Your task to perform on an android device: Open calendar and show me the second week of next month Image 0: 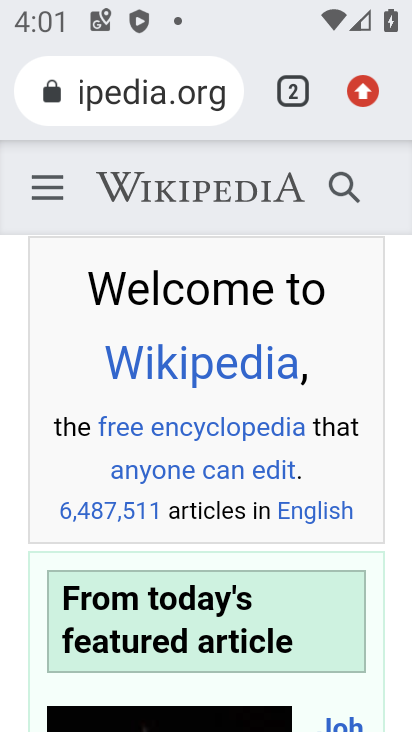
Step 0: press home button
Your task to perform on an android device: Open calendar and show me the second week of next month Image 1: 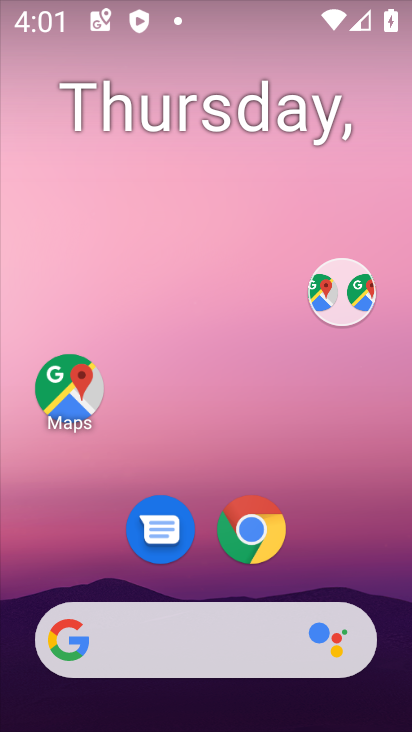
Step 1: drag from (395, 342) to (58, 281)
Your task to perform on an android device: Open calendar and show me the second week of next month Image 2: 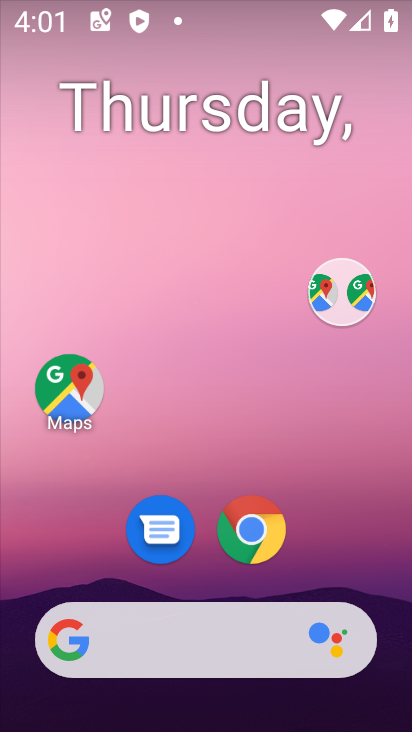
Step 2: drag from (183, 598) to (104, 137)
Your task to perform on an android device: Open calendar and show me the second week of next month Image 3: 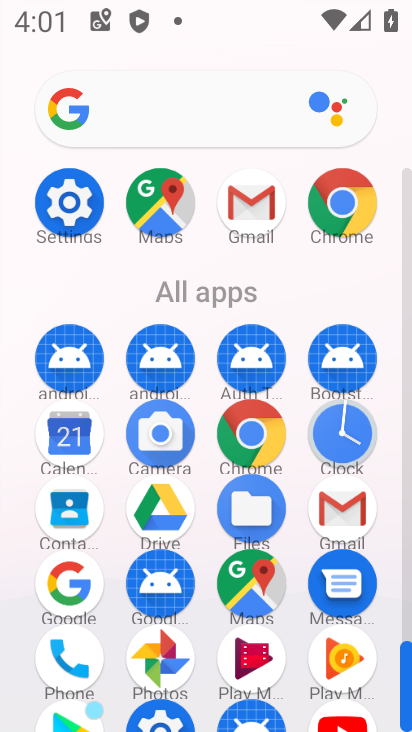
Step 3: click (82, 424)
Your task to perform on an android device: Open calendar and show me the second week of next month Image 4: 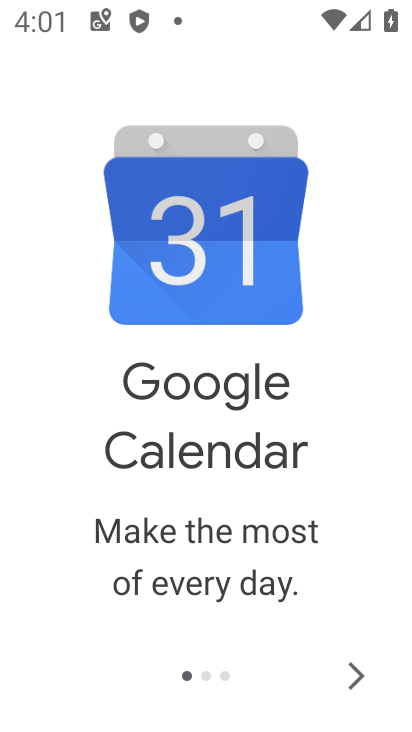
Step 4: click (349, 660)
Your task to perform on an android device: Open calendar and show me the second week of next month Image 5: 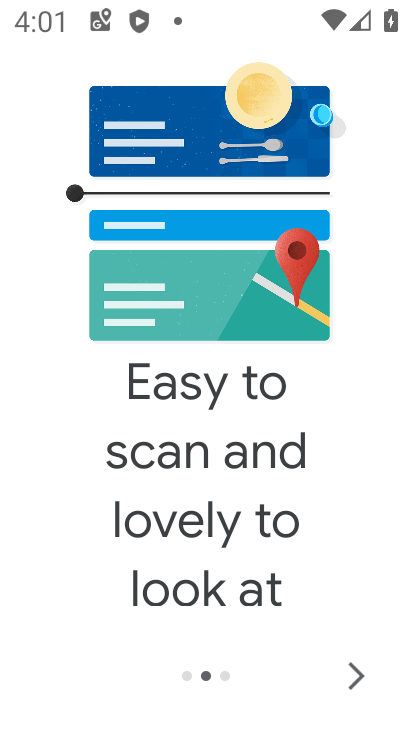
Step 5: click (351, 668)
Your task to perform on an android device: Open calendar and show me the second week of next month Image 6: 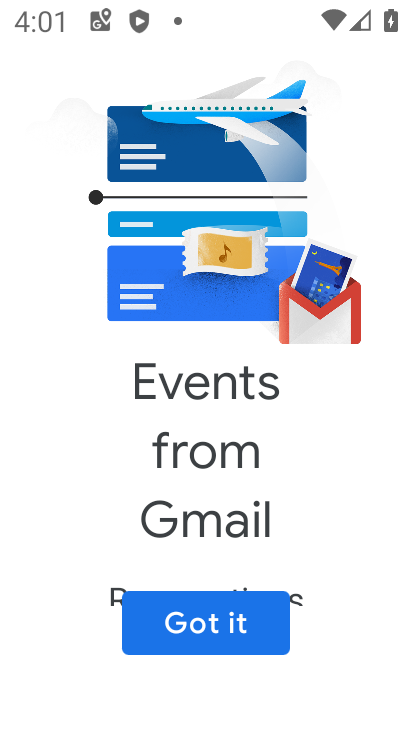
Step 6: click (258, 639)
Your task to perform on an android device: Open calendar and show me the second week of next month Image 7: 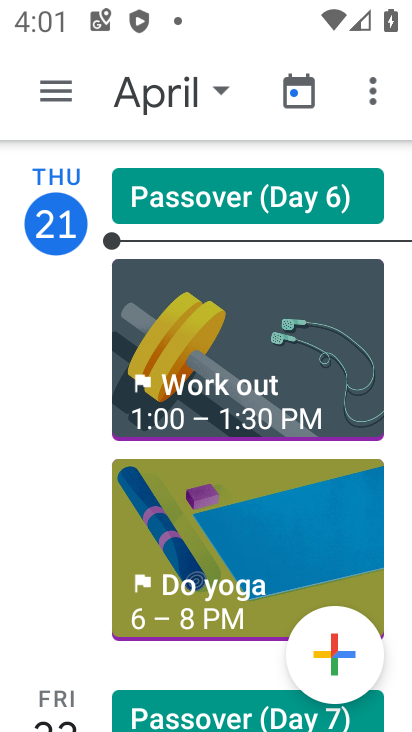
Step 7: click (42, 96)
Your task to perform on an android device: Open calendar and show me the second week of next month Image 8: 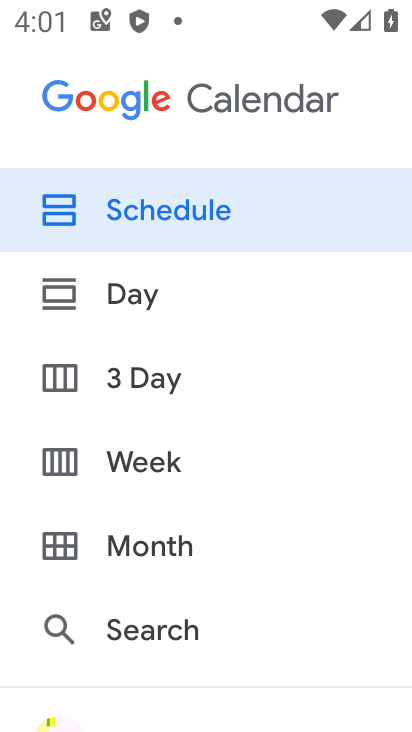
Step 8: click (150, 542)
Your task to perform on an android device: Open calendar and show me the second week of next month Image 9: 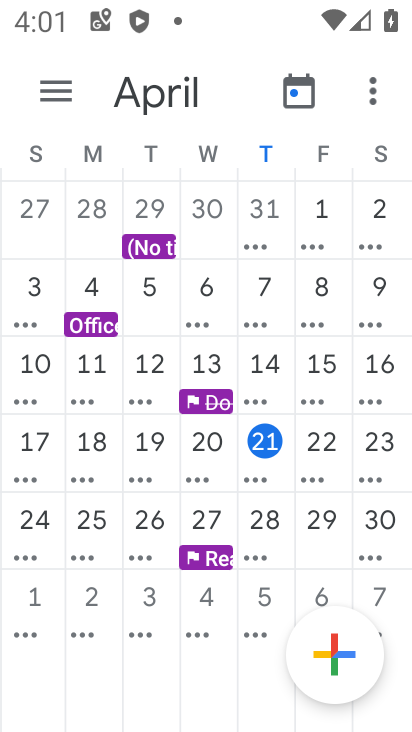
Step 9: drag from (326, 418) to (24, 335)
Your task to perform on an android device: Open calendar and show me the second week of next month Image 10: 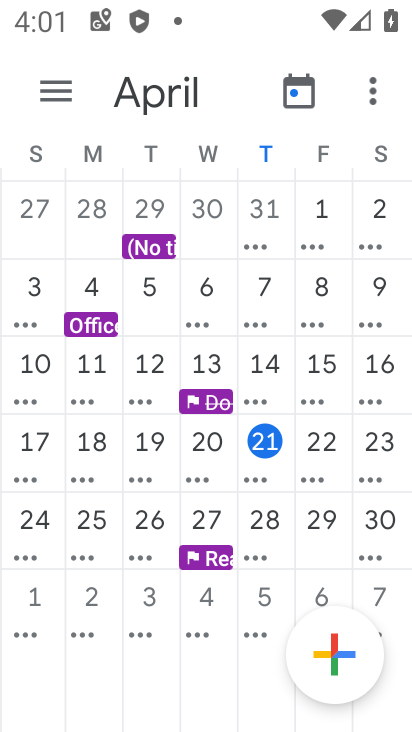
Step 10: drag from (392, 356) to (5, 415)
Your task to perform on an android device: Open calendar and show me the second week of next month Image 11: 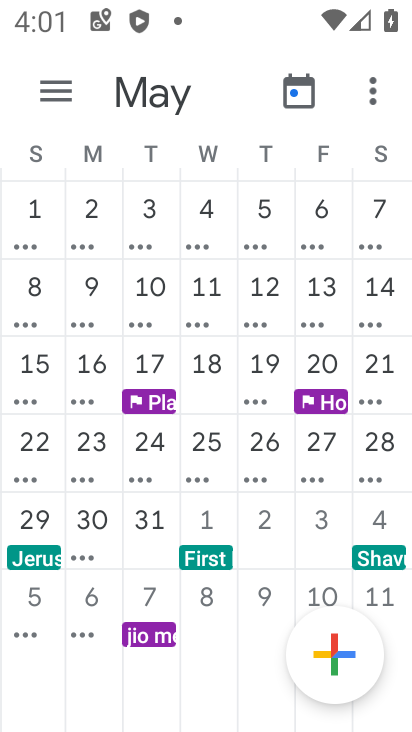
Step 11: click (331, 285)
Your task to perform on an android device: Open calendar and show me the second week of next month Image 12: 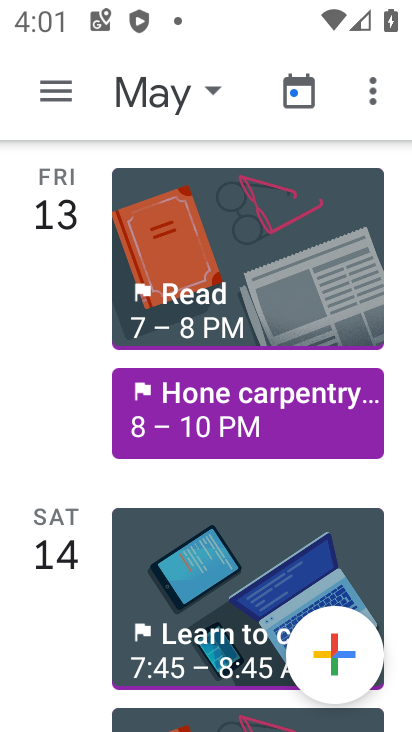
Step 12: task complete